Your task to perform on an android device: open the mobile data screen to see how much data has been used Image 0: 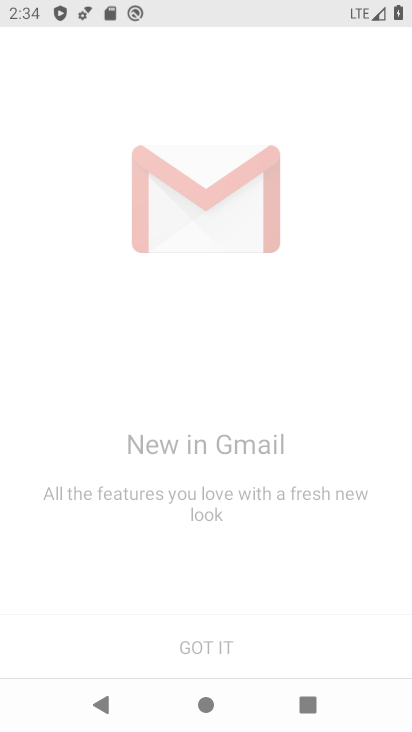
Step 0: press home button
Your task to perform on an android device: open the mobile data screen to see how much data has been used Image 1: 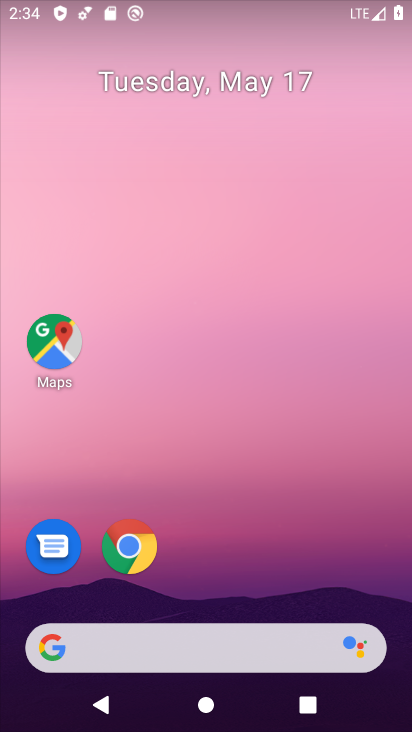
Step 1: drag from (177, 4) to (146, 729)
Your task to perform on an android device: open the mobile data screen to see how much data has been used Image 2: 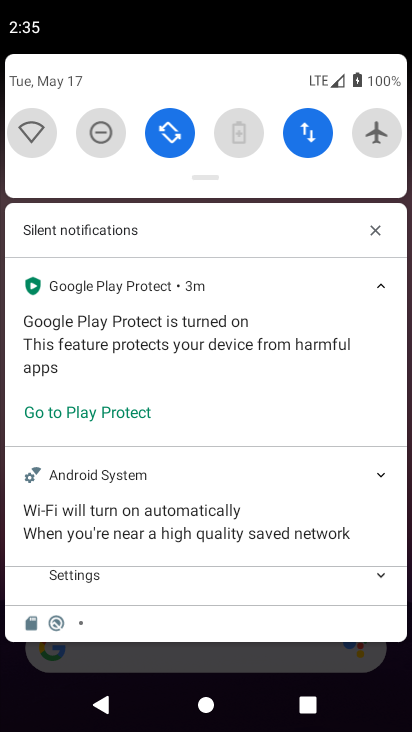
Step 2: click (33, 135)
Your task to perform on an android device: open the mobile data screen to see how much data has been used Image 3: 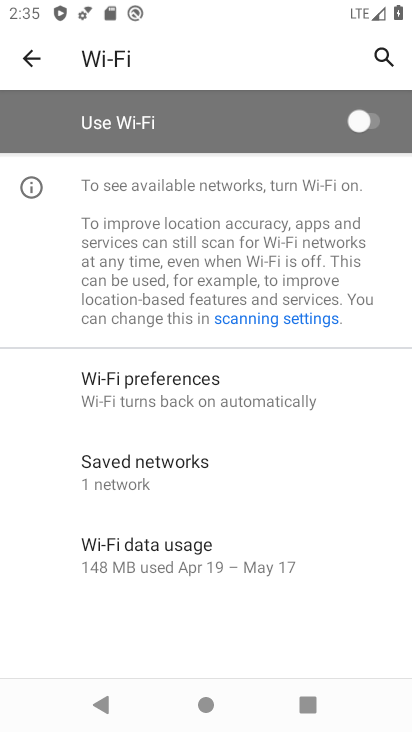
Step 3: press home button
Your task to perform on an android device: open the mobile data screen to see how much data has been used Image 4: 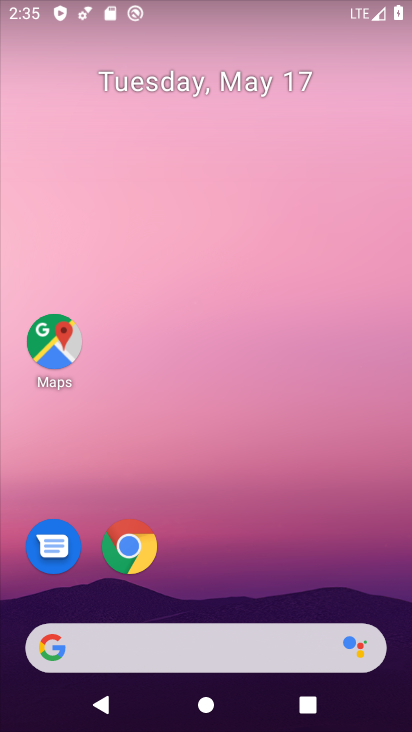
Step 4: drag from (323, 6) to (321, 727)
Your task to perform on an android device: open the mobile data screen to see how much data has been used Image 5: 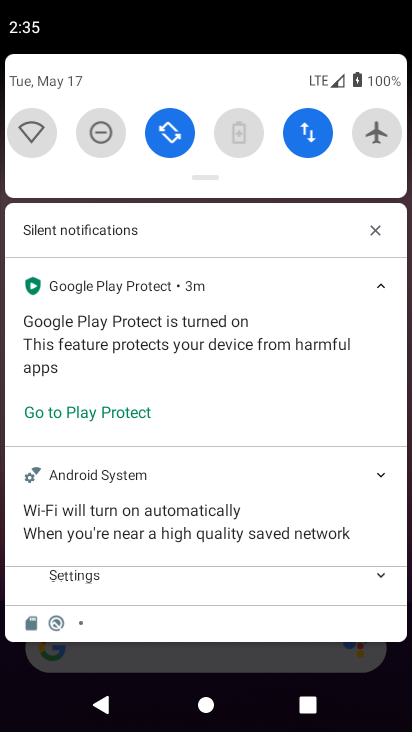
Step 5: click (298, 138)
Your task to perform on an android device: open the mobile data screen to see how much data has been used Image 6: 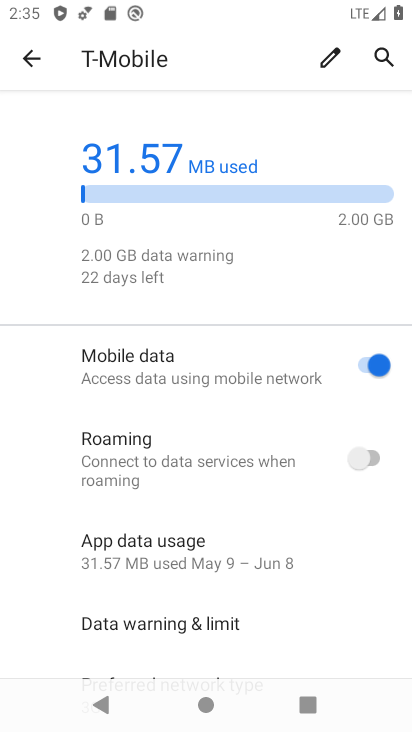
Step 6: task complete